Your task to perform on an android device: Go to sound settings Image 0: 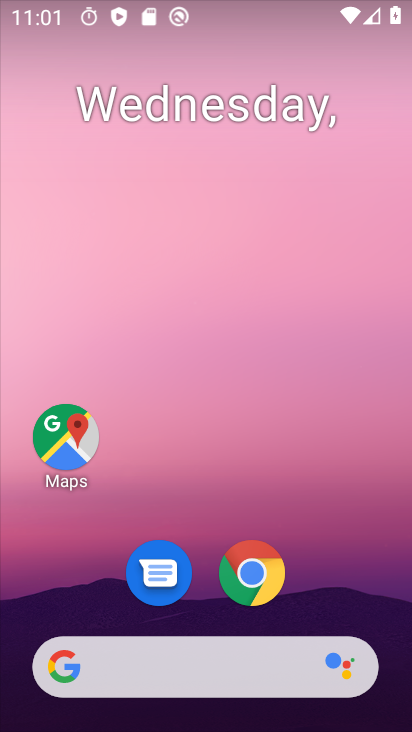
Step 0: click (386, 159)
Your task to perform on an android device: Go to sound settings Image 1: 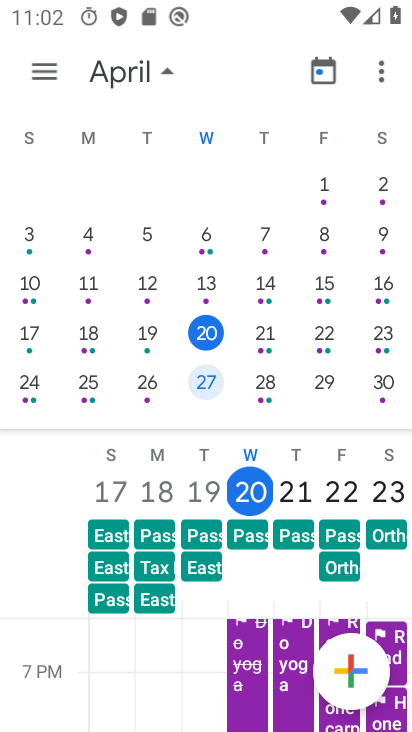
Step 1: press home button
Your task to perform on an android device: Go to sound settings Image 2: 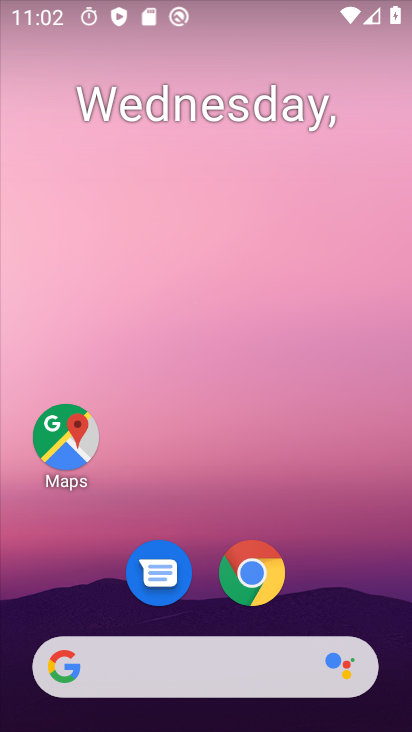
Step 2: drag from (368, 614) to (312, 181)
Your task to perform on an android device: Go to sound settings Image 3: 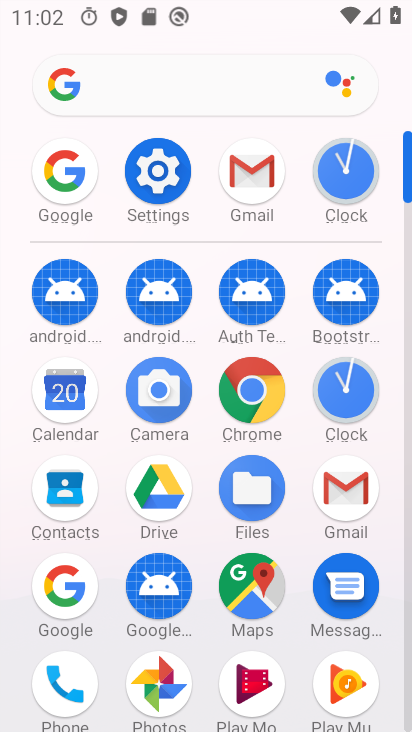
Step 3: click (158, 171)
Your task to perform on an android device: Go to sound settings Image 4: 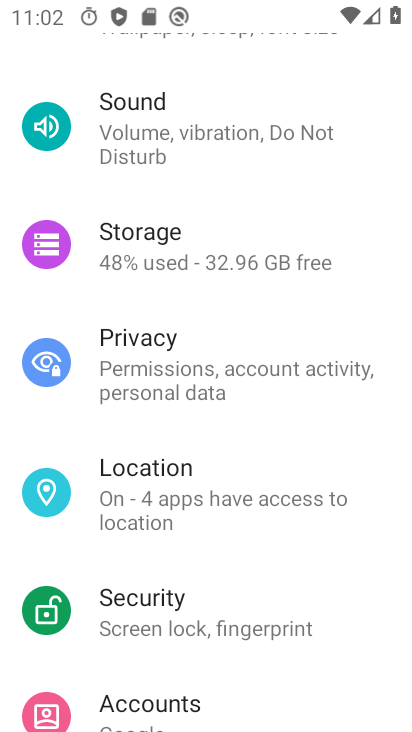
Step 4: click (134, 141)
Your task to perform on an android device: Go to sound settings Image 5: 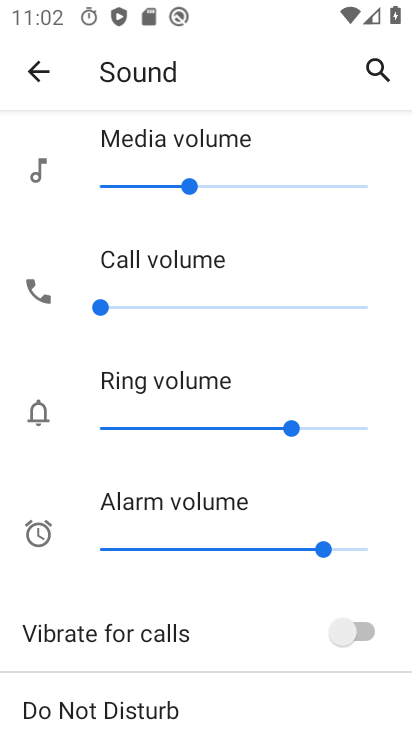
Step 5: task complete